Your task to perform on an android device: star an email in the gmail app Image 0: 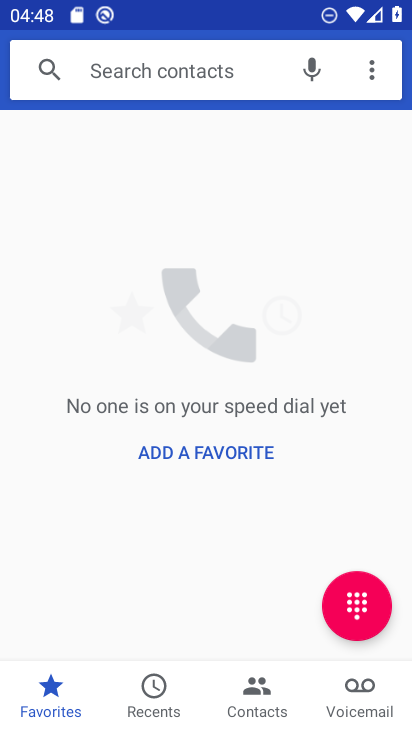
Step 0: press home button
Your task to perform on an android device: star an email in the gmail app Image 1: 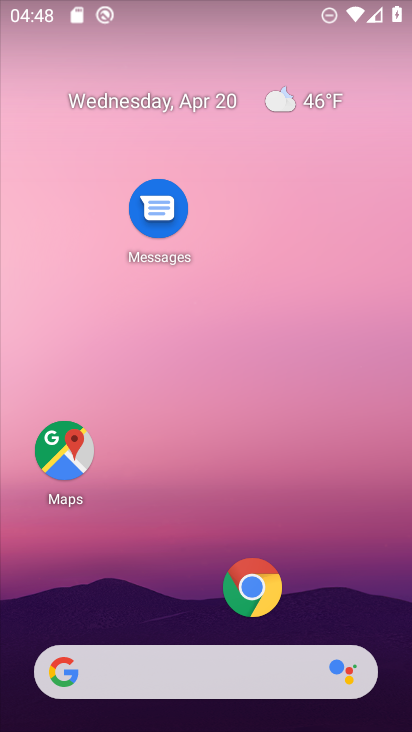
Step 1: drag from (186, 620) to (228, 136)
Your task to perform on an android device: star an email in the gmail app Image 2: 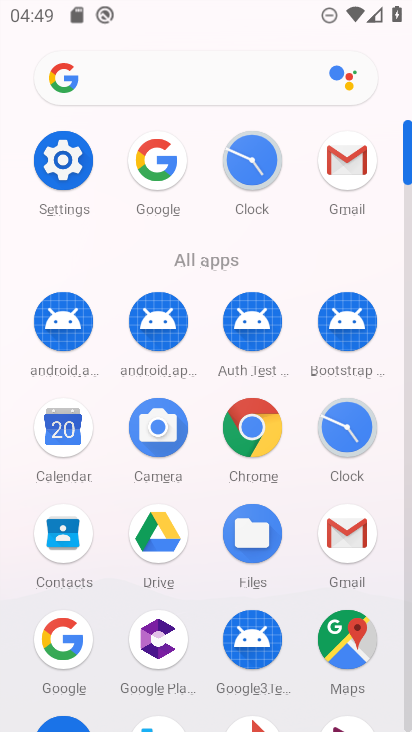
Step 2: click (341, 156)
Your task to perform on an android device: star an email in the gmail app Image 3: 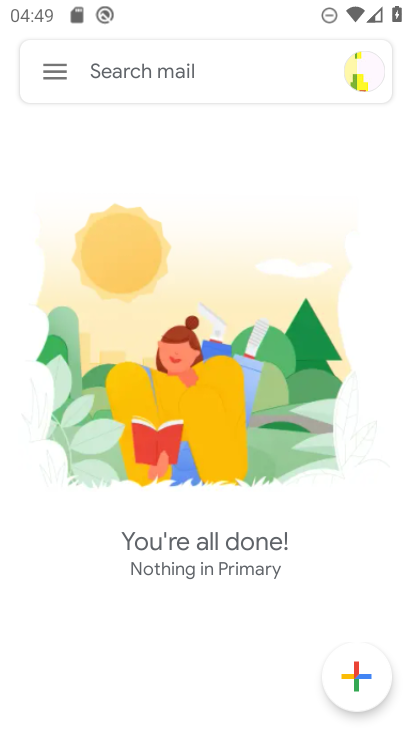
Step 3: click (43, 72)
Your task to perform on an android device: star an email in the gmail app Image 4: 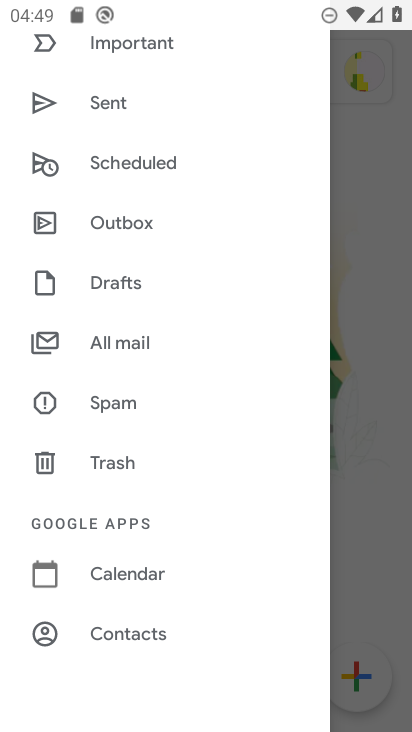
Step 4: click (127, 346)
Your task to perform on an android device: star an email in the gmail app Image 5: 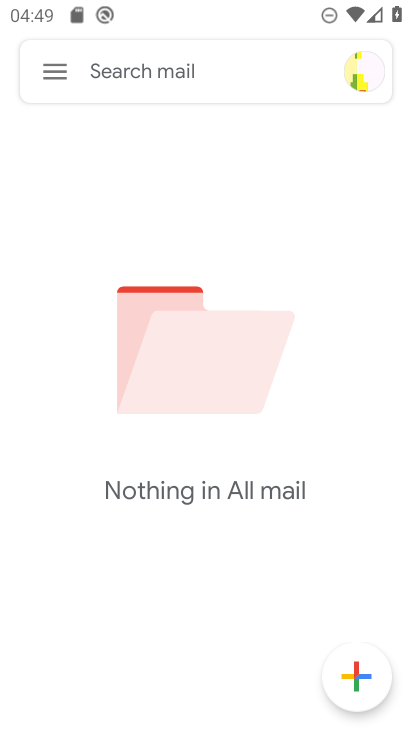
Step 5: click (59, 74)
Your task to perform on an android device: star an email in the gmail app Image 6: 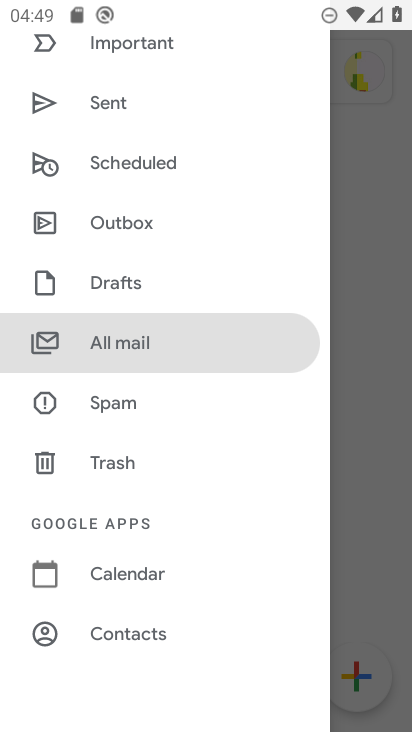
Step 6: click (341, 287)
Your task to perform on an android device: star an email in the gmail app Image 7: 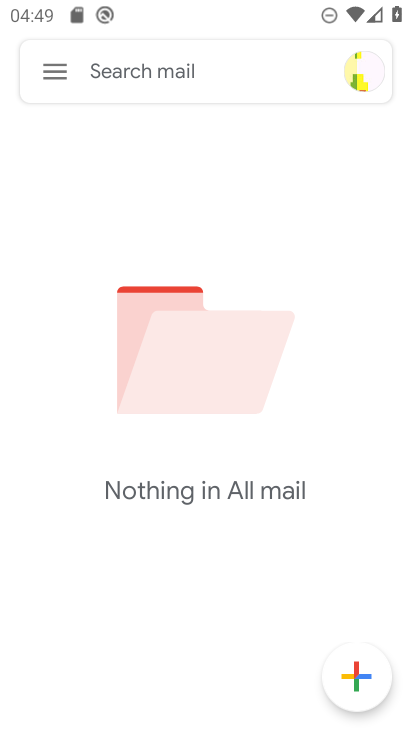
Step 7: task complete